Your task to perform on an android device: Open Google Image 0: 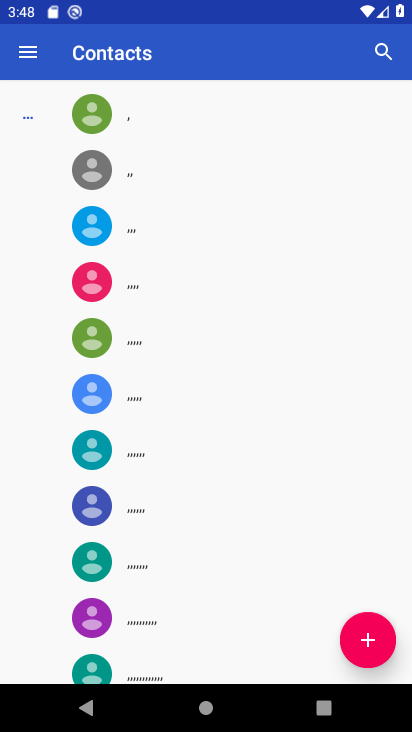
Step 0: press home button
Your task to perform on an android device: Open Google Image 1: 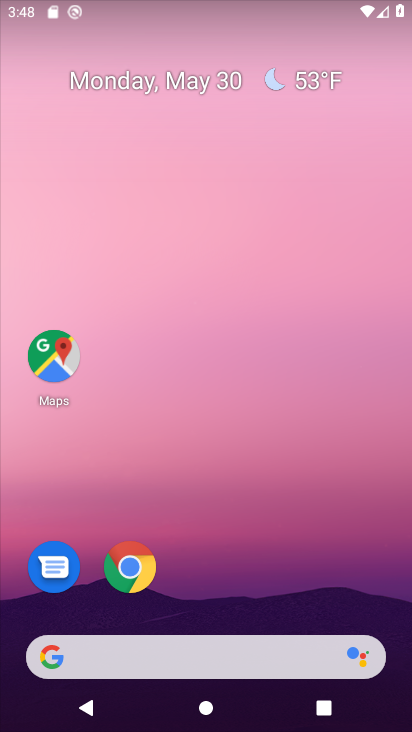
Step 1: drag from (335, 627) to (352, 98)
Your task to perform on an android device: Open Google Image 2: 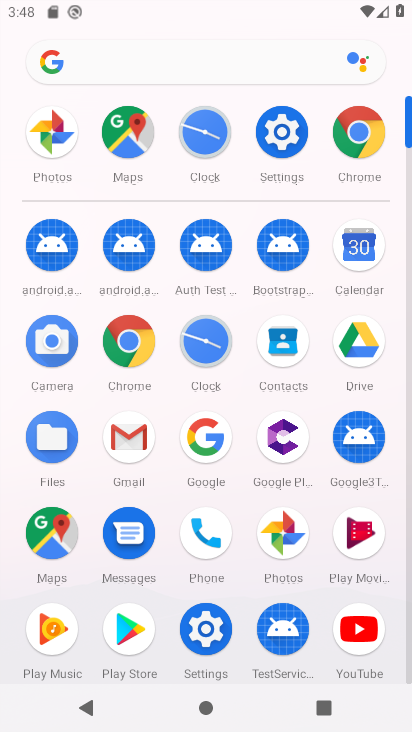
Step 2: click (122, 339)
Your task to perform on an android device: Open Google Image 3: 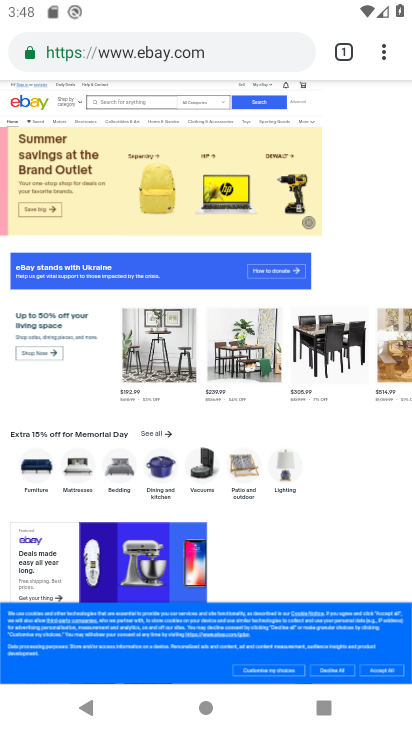
Step 3: task complete